Your task to perform on an android device: turn on showing notifications on the lock screen Image 0: 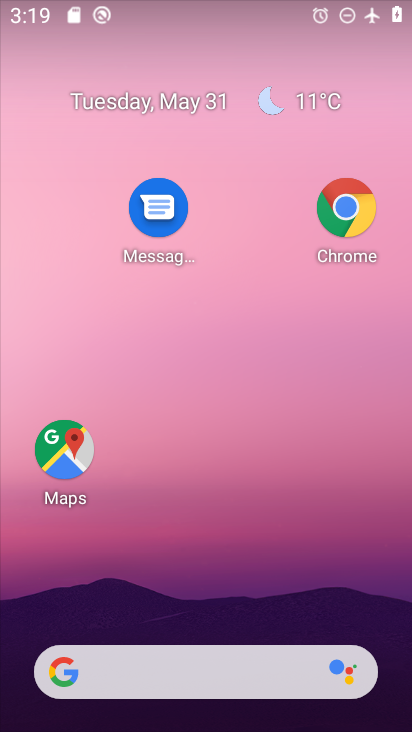
Step 0: drag from (223, 555) to (223, 23)
Your task to perform on an android device: turn on showing notifications on the lock screen Image 1: 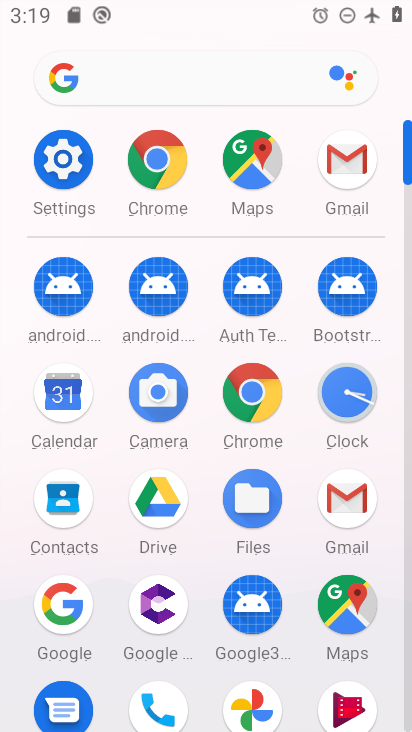
Step 1: click (68, 149)
Your task to perform on an android device: turn on showing notifications on the lock screen Image 2: 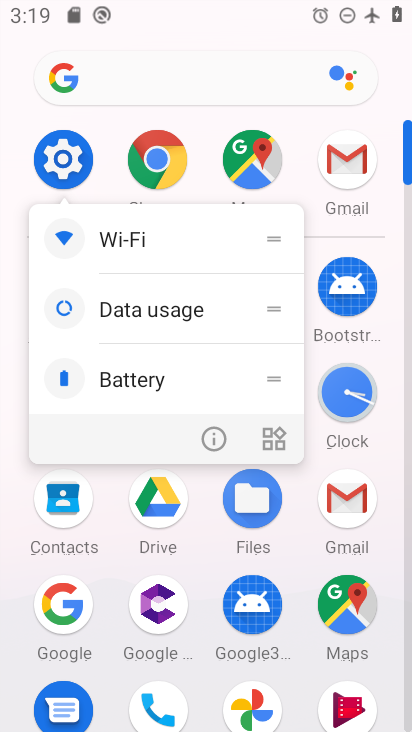
Step 2: click (208, 428)
Your task to perform on an android device: turn on showing notifications on the lock screen Image 3: 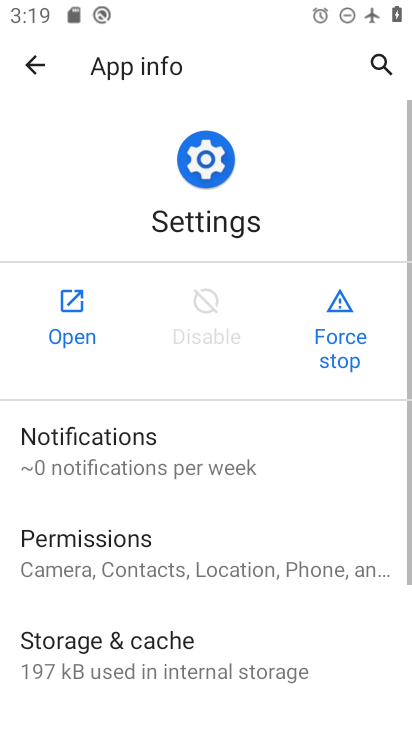
Step 3: click (84, 297)
Your task to perform on an android device: turn on showing notifications on the lock screen Image 4: 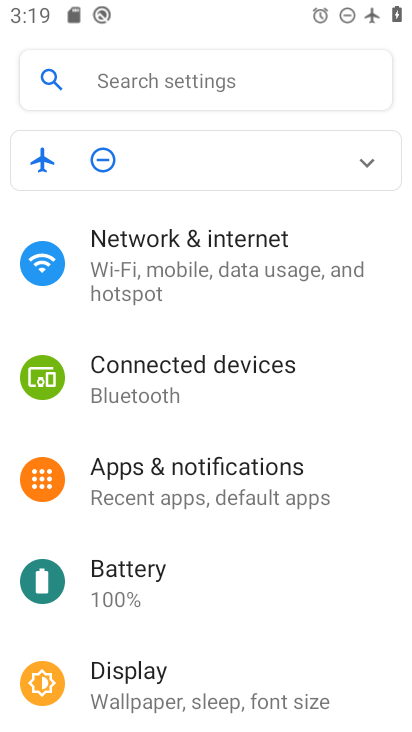
Step 4: drag from (225, 518) to (287, 176)
Your task to perform on an android device: turn on showing notifications on the lock screen Image 5: 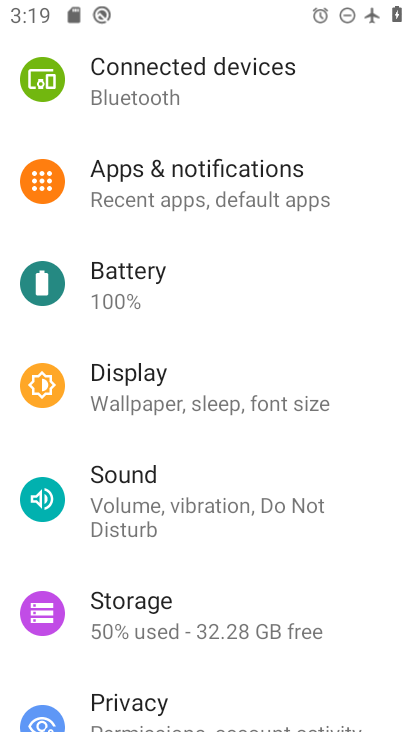
Step 5: drag from (239, 122) to (190, 591)
Your task to perform on an android device: turn on showing notifications on the lock screen Image 6: 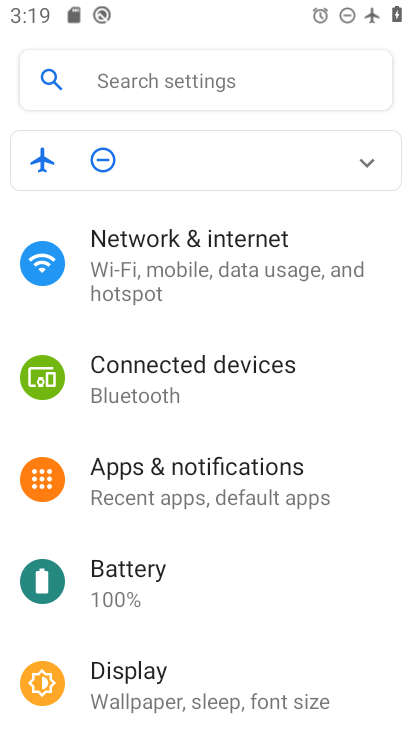
Step 6: click (173, 288)
Your task to perform on an android device: turn on showing notifications on the lock screen Image 7: 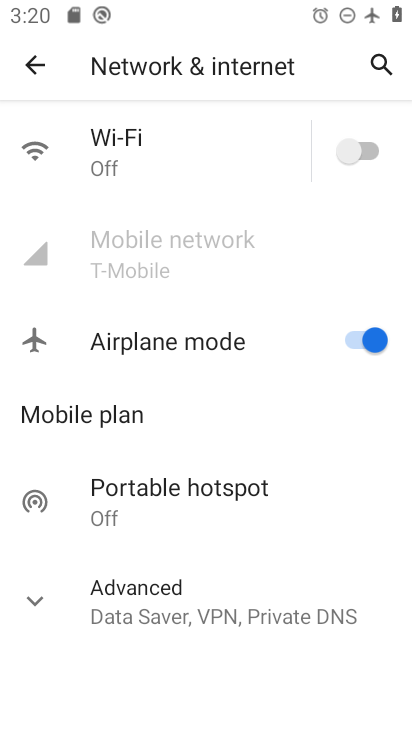
Step 7: click (33, 71)
Your task to perform on an android device: turn on showing notifications on the lock screen Image 8: 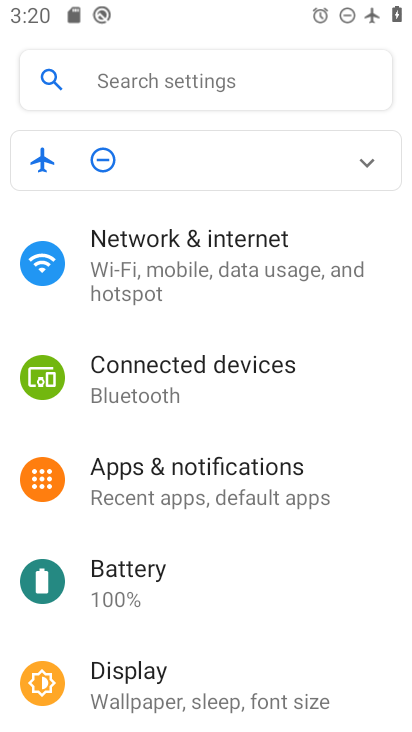
Step 8: click (186, 478)
Your task to perform on an android device: turn on showing notifications on the lock screen Image 9: 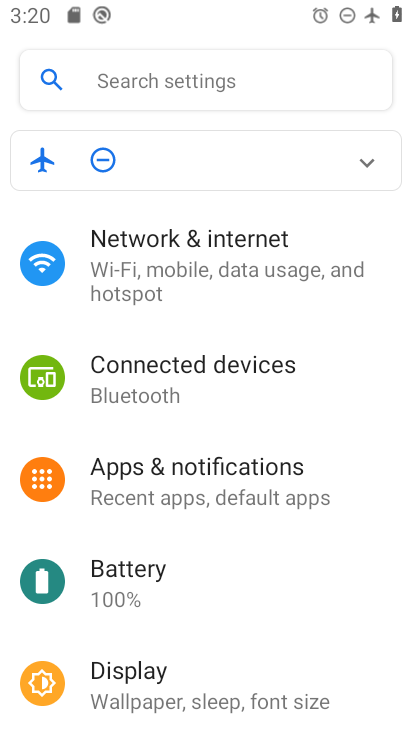
Step 9: drag from (184, 471) to (275, 44)
Your task to perform on an android device: turn on showing notifications on the lock screen Image 10: 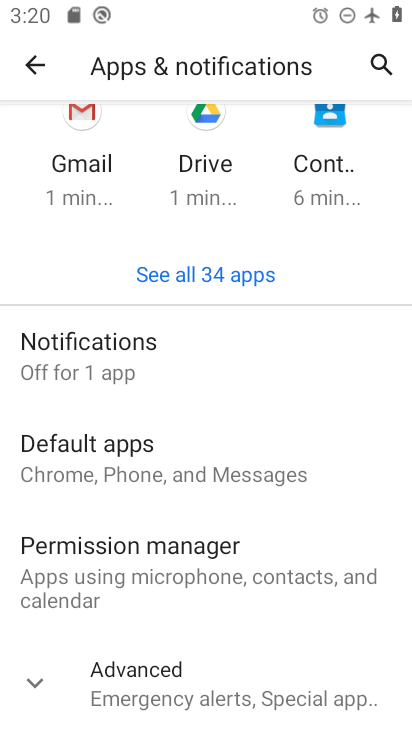
Step 10: click (174, 353)
Your task to perform on an android device: turn on showing notifications on the lock screen Image 11: 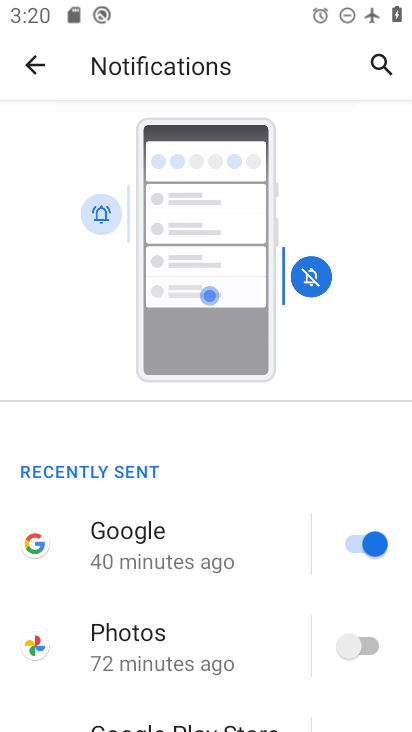
Step 11: drag from (205, 542) to (266, 56)
Your task to perform on an android device: turn on showing notifications on the lock screen Image 12: 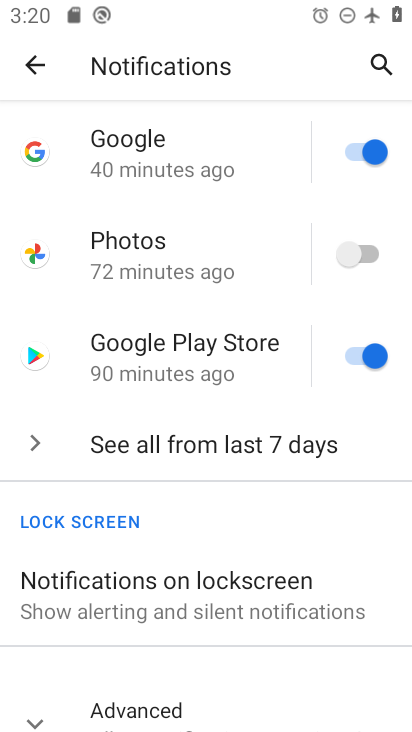
Step 12: click (210, 578)
Your task to perform on an android device: turn on showing notifications on the lock screen Image 13: 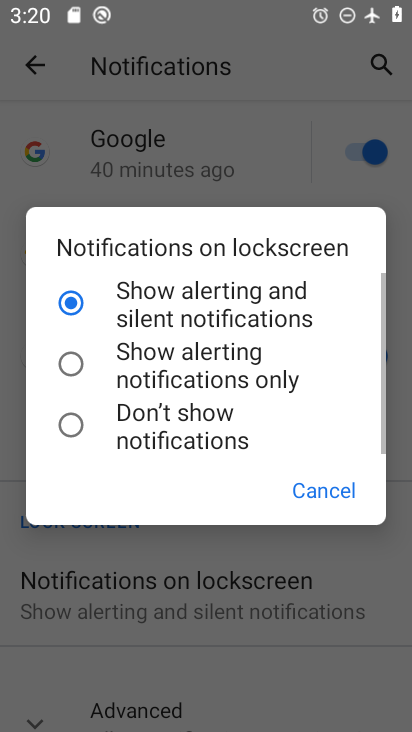
Step 13: task complete